Your task to perform on an android device: set an alarm Image 0: 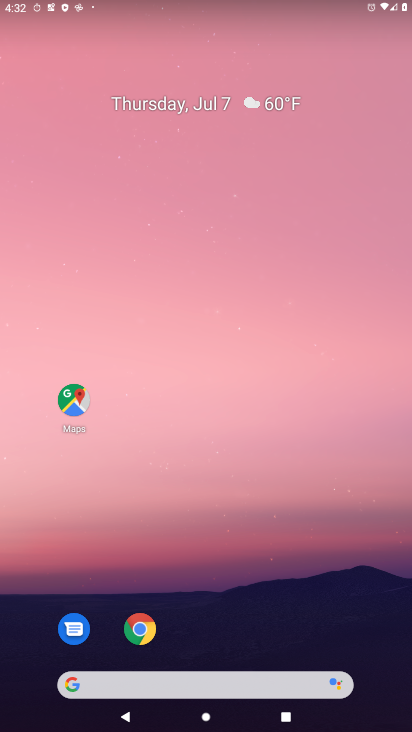
Step 0: press home button
Your task to perform on an android device: set an alarm Image 1: 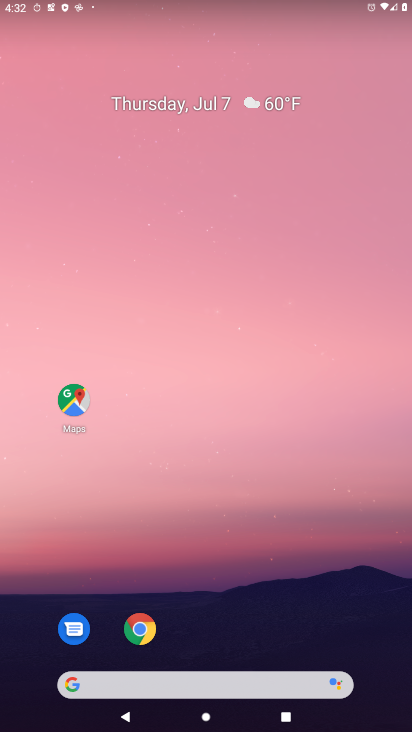
Step 1: drag from (154, 236) to (147, 93)
Your task to perform on an android device: set an alarm Image 2: 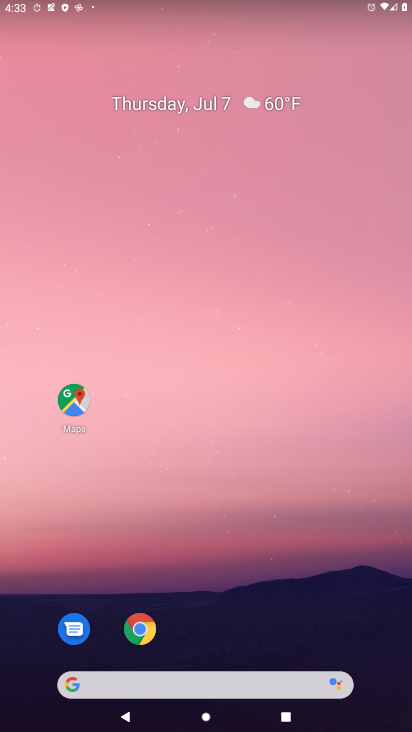
Step 2: click (188, 630)
Your task to perform on an android device: set an alarm Image 3: 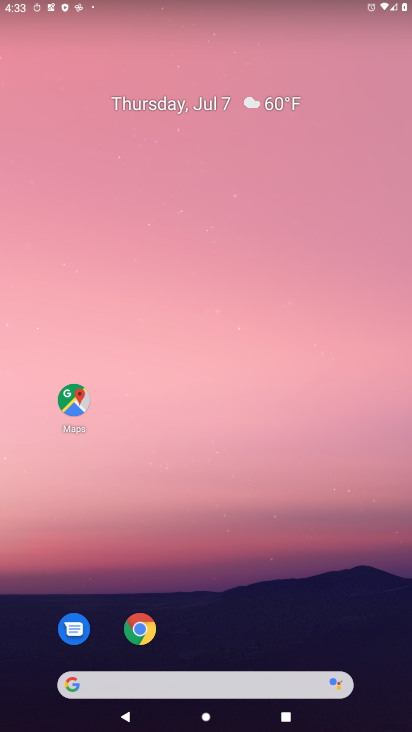
Step 3: drag from (115, 342) to (97, 49)
Your task to perform on an android device: set an alarm Image 4: 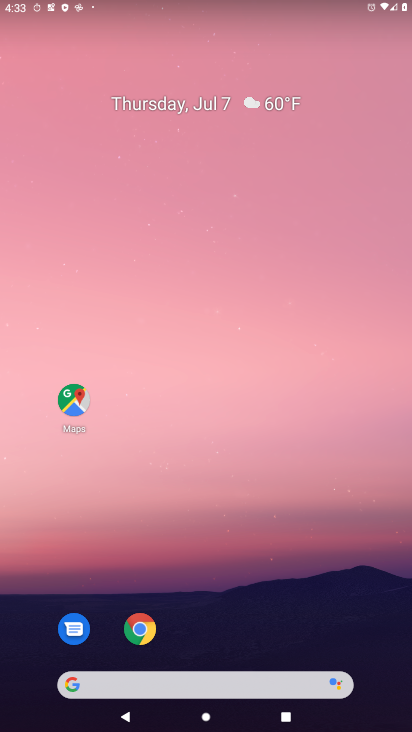
Step 4: drag from (220, 372) to (220, 193)
Your task to perform on an android device: set an alarm Image 5: 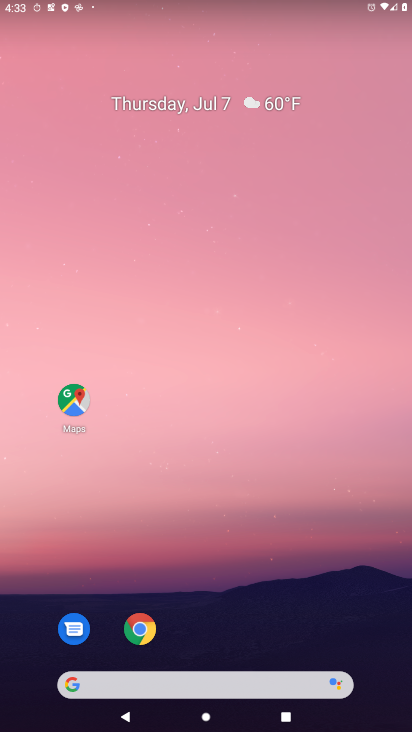
Step 5: drag from (223, 417) to (258, 65)
Your task to perform on an android device: set an alarm Image 6: 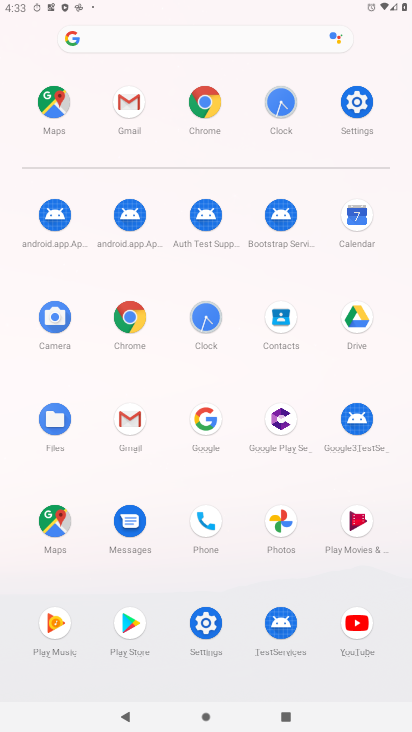
Step 6: click (243, 349)
Your task to perform on an android device: set an alarm Image 7: 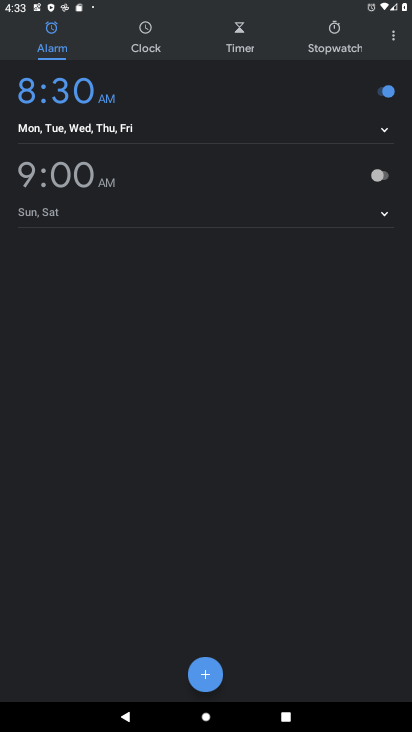
Step 7: click (385, 178)
Your task to perform on an android device: set an alarm Image 8: 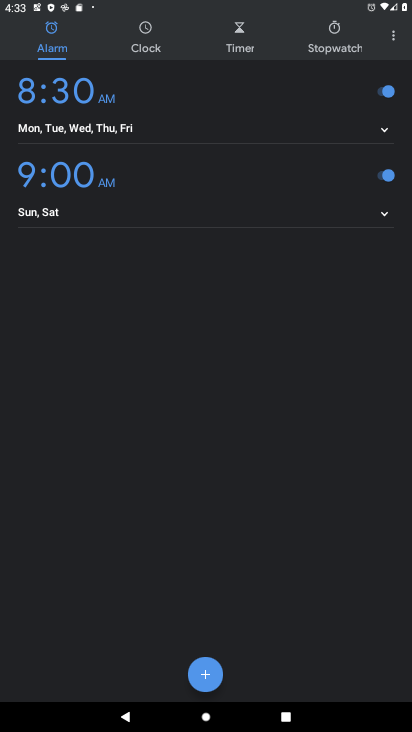
Step 8: task complete